Your task to perform on an android device: move an email to a new category in the gmail app Image 0: 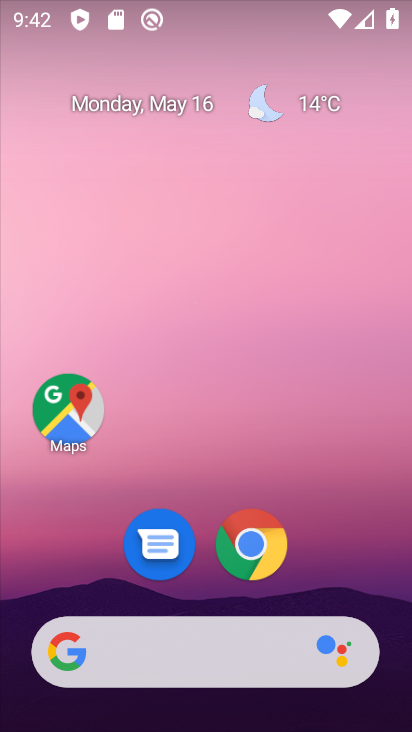
Step 0: drag from (346, 584) to (372, 189)
Your task to perform on an android device: move an email to a new category in the gmail app Image 1: 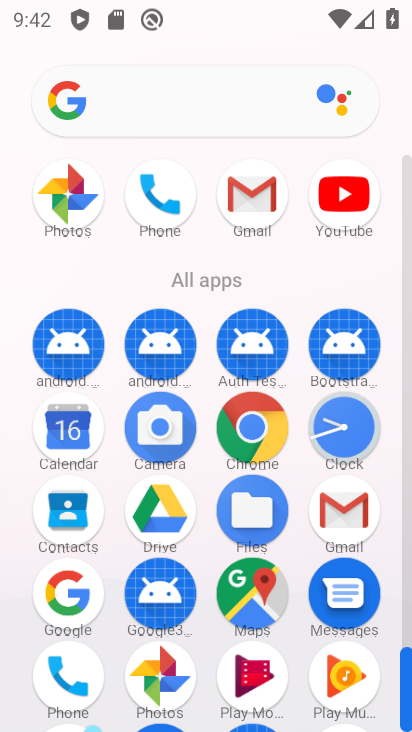
Step 1: click (361, 516)
Your task to perform on an android device: move an email to a new category in the gmail app Image 2: 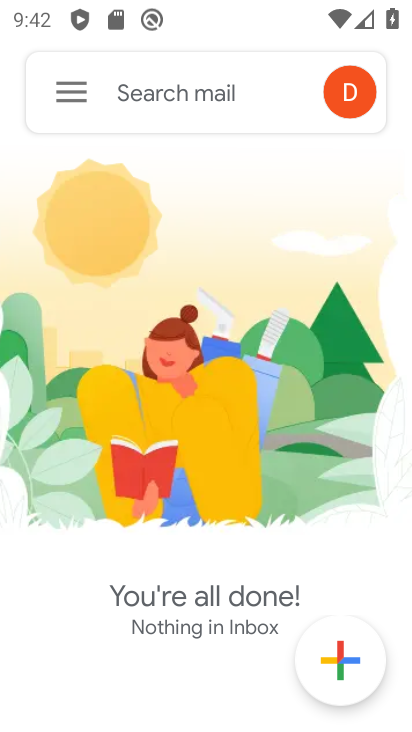
Step 2: task complete